Your task to perform on an android device: turn smart compose on in the gmail app Image 0: 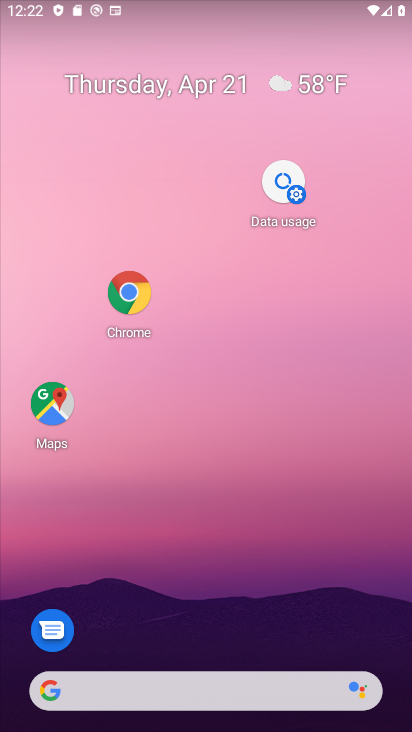
Step 0: drag from (197, 648) to (174, 263)
Your task to perform on an android device: turn smart compose on in the gmail app Image 1: 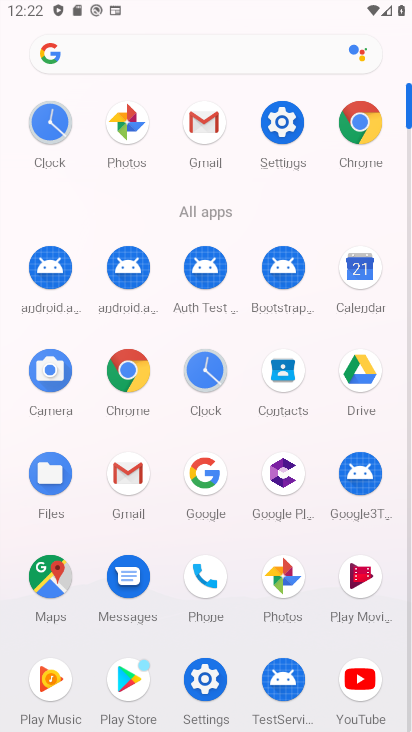
Step 1: click (133, 470)
Your task to perform on an android device: turn smart compose on in the gmail app Image 2: 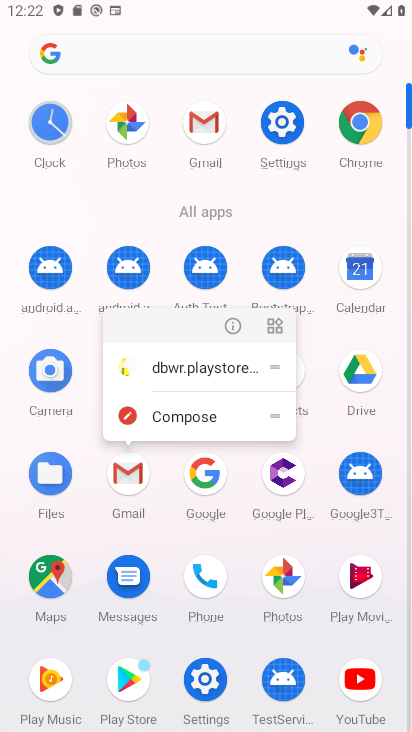
Step 2: click (133, 470)
Your task to perform on an android device: turn smart compose on in the gmail app Image 3: 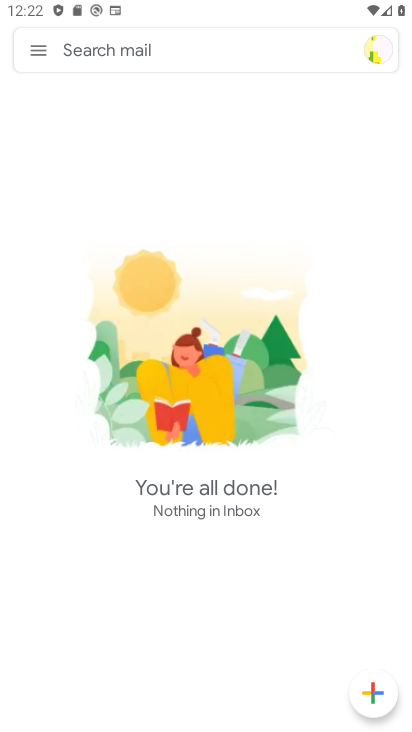
Step 3: click (34, 52)
Your task to perform on an android device: turn smart compose on in the gmail app Image 4: 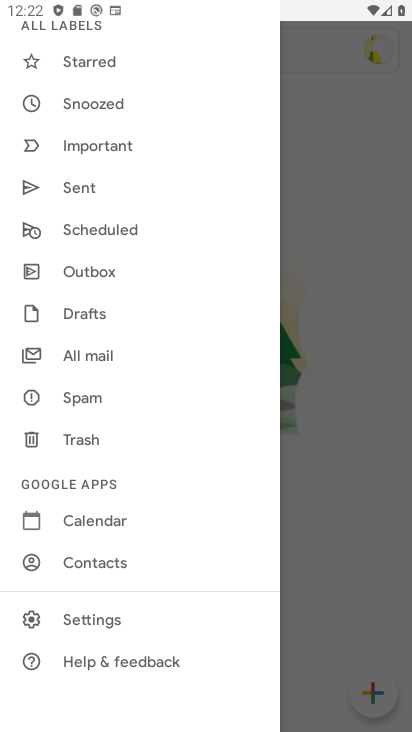
Step 4: click (85, 612)
Your task to perform on an android device: turn smart compose on in the gmail app Image 5: 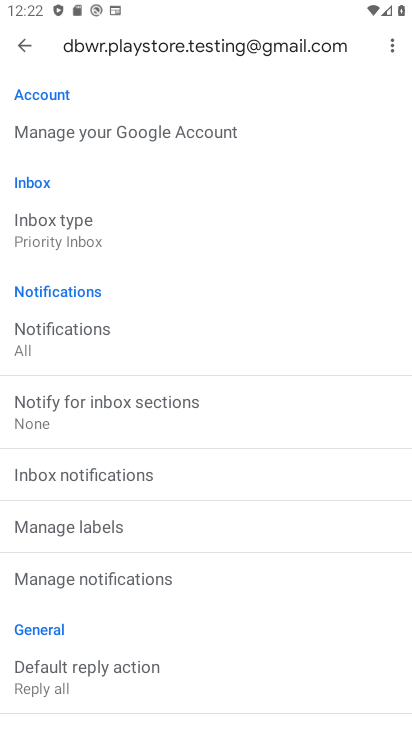
Step 5: click (113, 295)
Your task to perform on an android device: turn smart compose on in the gmail app Image 6: 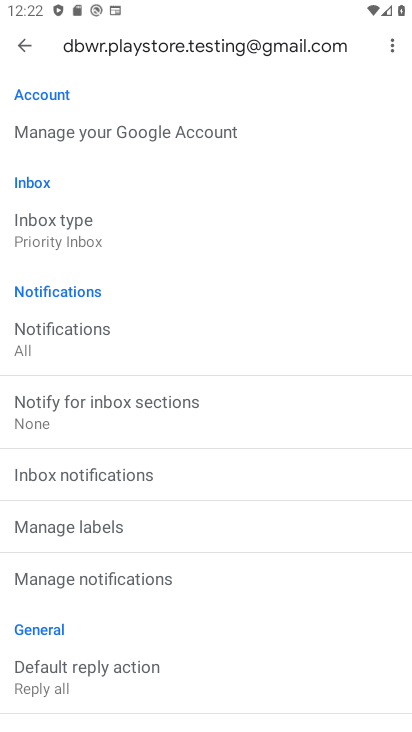
Step 6: task complete